Your task to perform on an android device: open a bookmark in the chrome app Image 0: 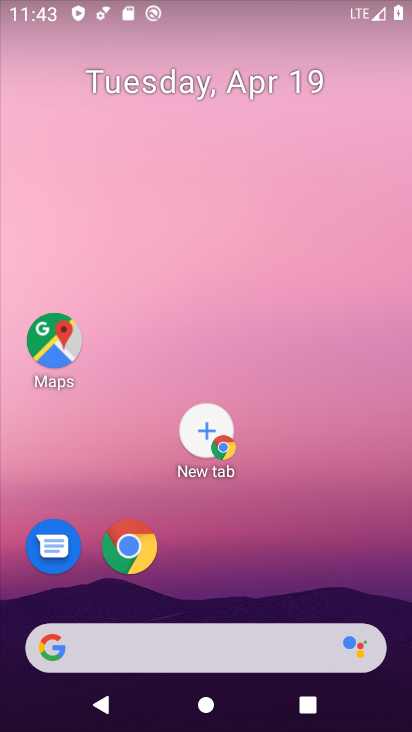
Step 0: click (137, 553)
Your task to perform on an android device: open a bookmark in the chrome app Image 1: 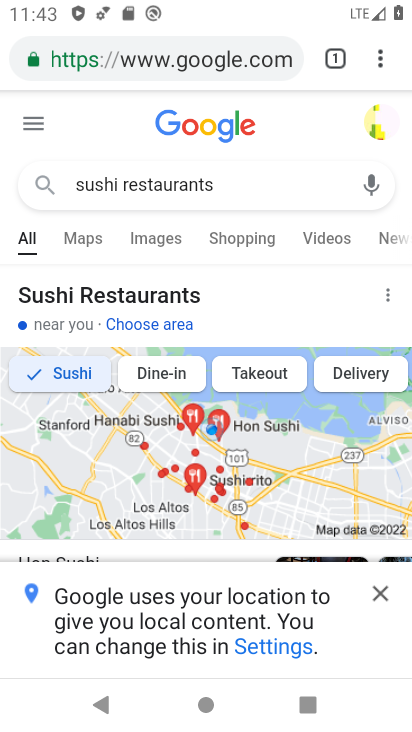
Step 1: click (383, 71)
Your task to perform on an android device: open a bookmark in the chrome app Image 2: 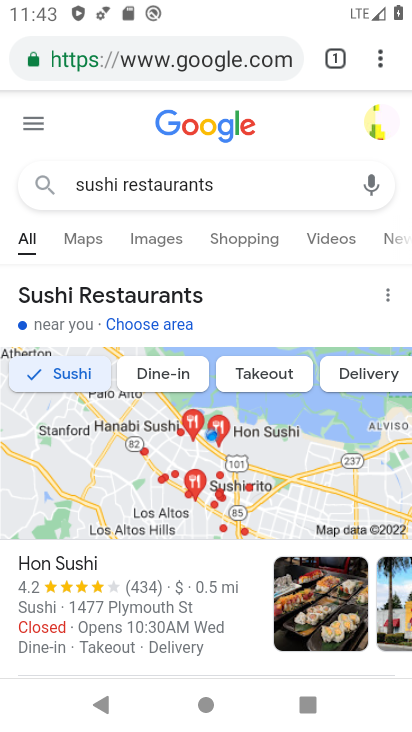
Step 2: click (383, 71)
Your task to perform on an android device: open a bookmark in the chrome app Image 3: 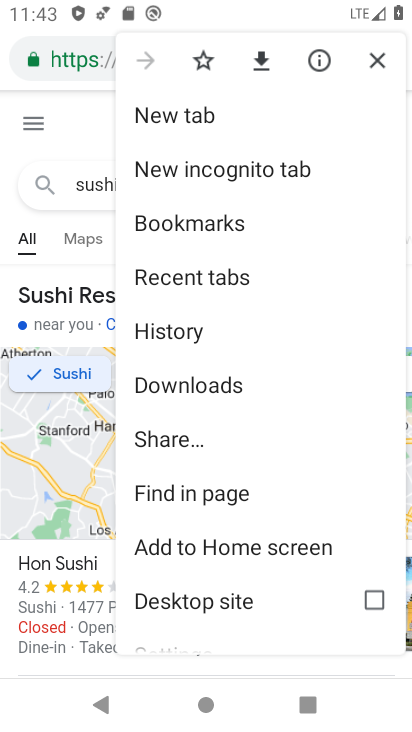
Step 3: click (187, 234)
Your task to perform on an android device: open a bookmark in the chrome app Image 4: 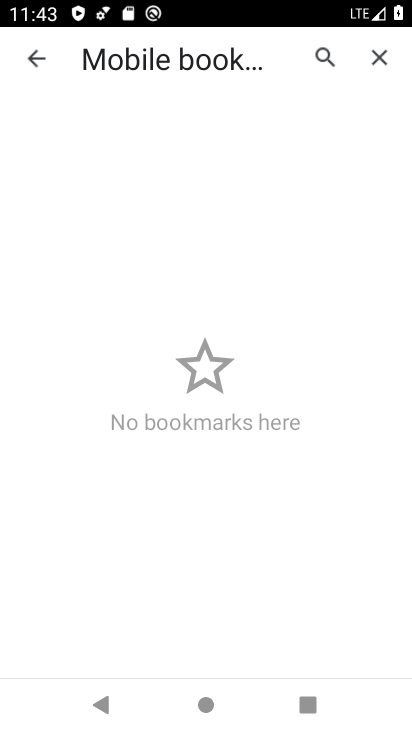
Step 4: task complete